Your task to perform on an android device: Open battery settings Image 0: 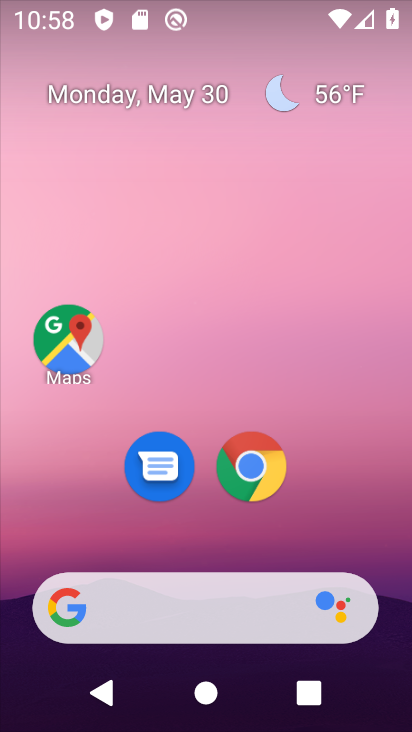
Step 0: drag from (378, 561) to (327, 124)
Your task to perform on an android device: Open battery settings Image 1: 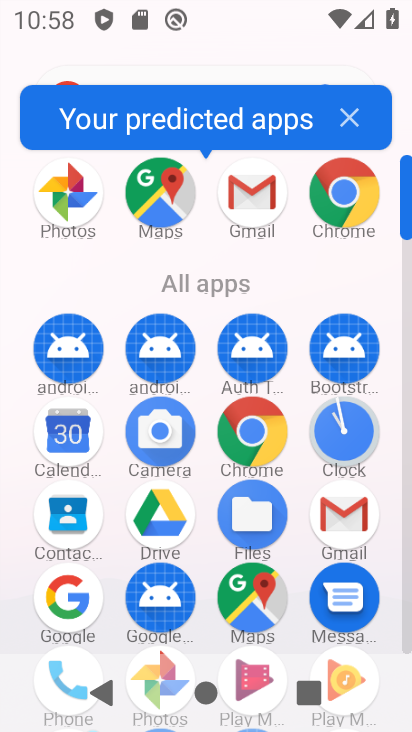
Step 1: drag from (292, 307) to (274, 126)
Your task to perform on an android device: Open battery settings Image 2: 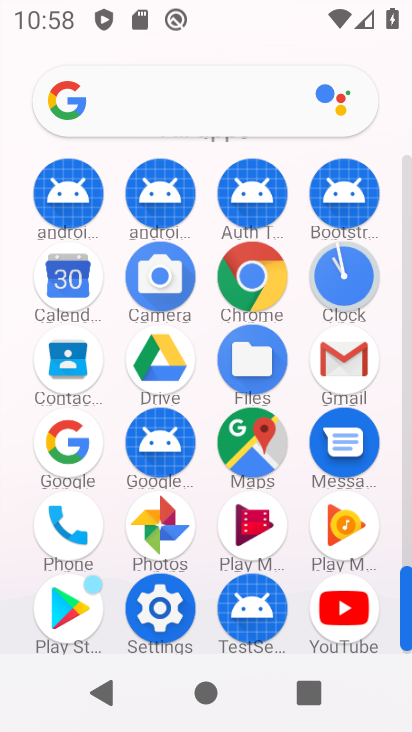
Step 2: click (152, 615)
Your task to perform on an android device: Open battery settings Image 3: 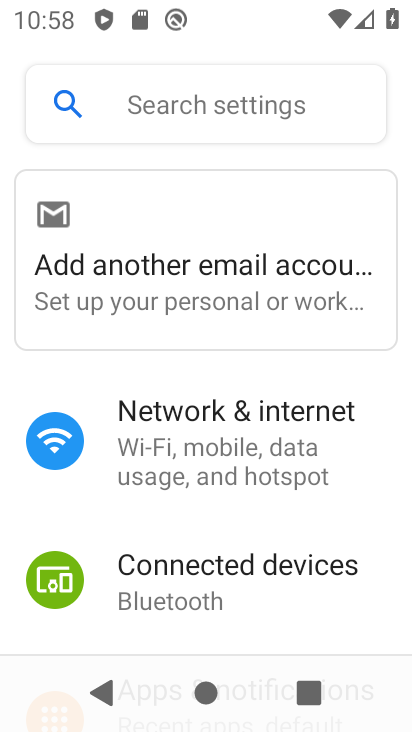
Step 3: drag from (269, 575) to (262, 370)
Your task to perform on an android device: Open battery settings Image 4: 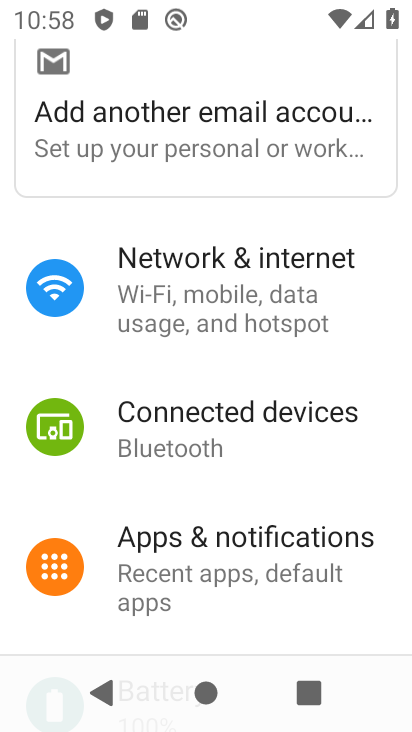
Step 4: drag from (251, 565) to (237, 357)
Your task to perform on an android device: Open battery settings Image 5: 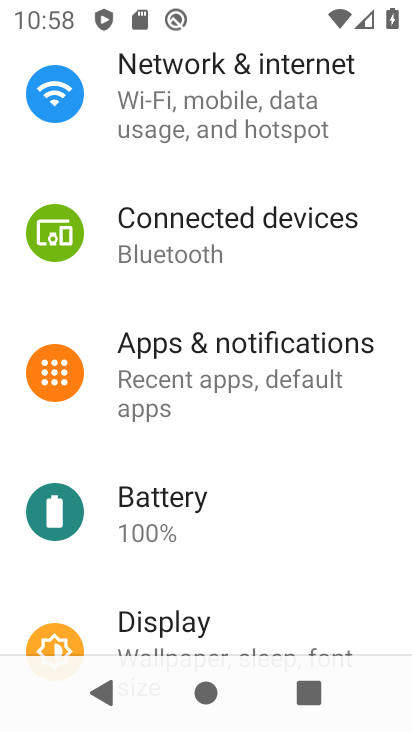
Step 5: click (209, 511)
Your task to perform on an android device: Open battery settings Image 6: 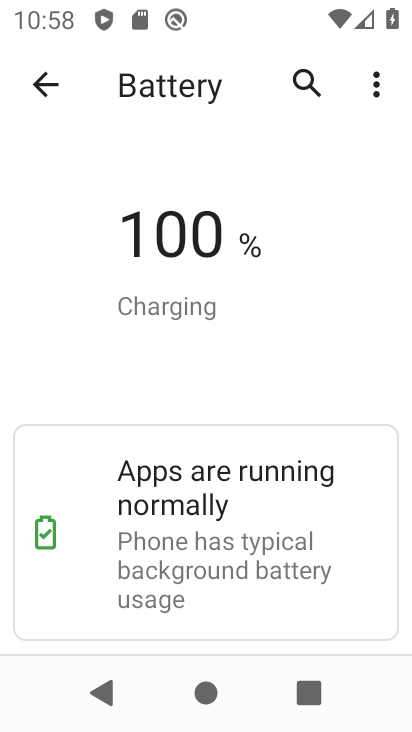
Step 6: task complete